Your task to perform on an android device: Set the phone to "Do not disturb". Image 0: 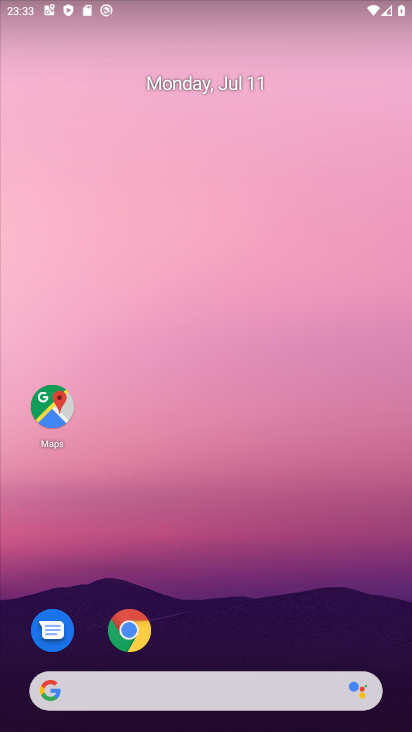
Step 0: drag from (209, 648) to (231, 115)
Your task to perform on an android device: Set the phone to "Do not disturb". Image 1: 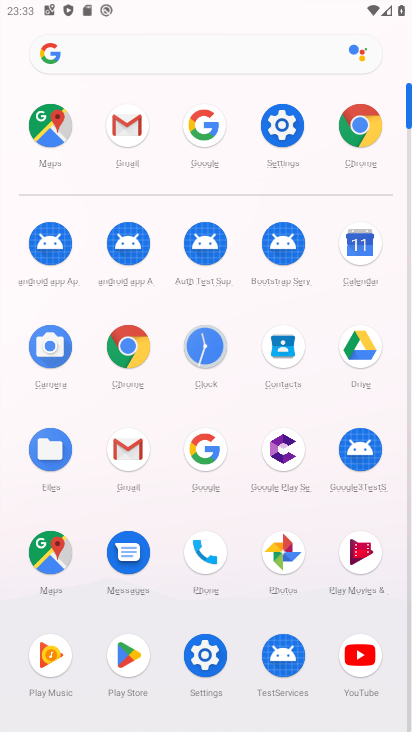
Step 1: click (287, 123)
Your task to perform on an android device: Set the phone to "Do not disturb". Image 2: 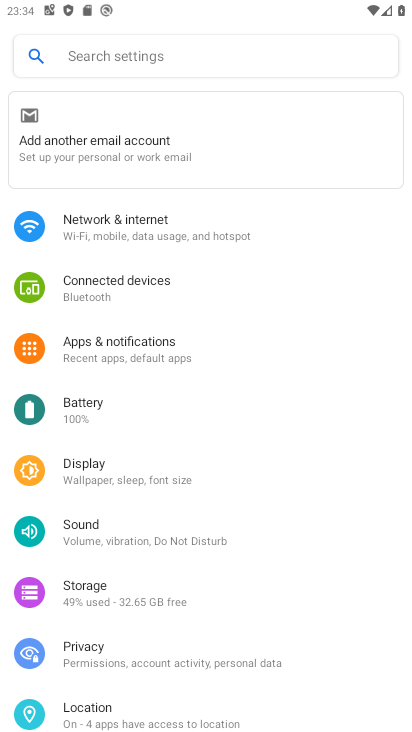
Step 2: click (129, 533)
Your task to perform on an android device: Set the phone to "Do not disturb". Image 3: 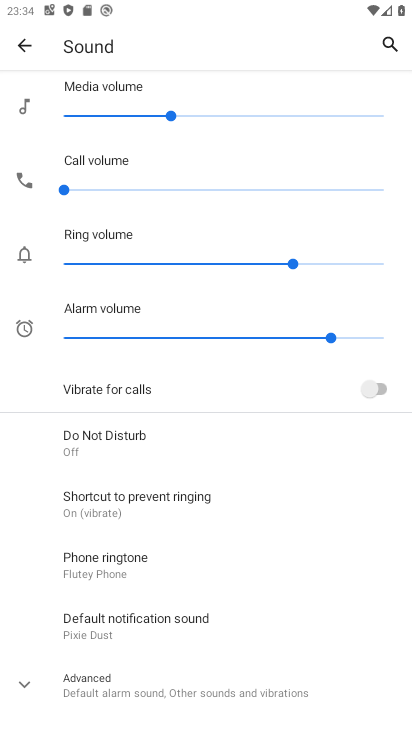
Step 3: click (134, 438)
Your task to perform on an android device: Set the phone to "Do not disturb". Image 4: 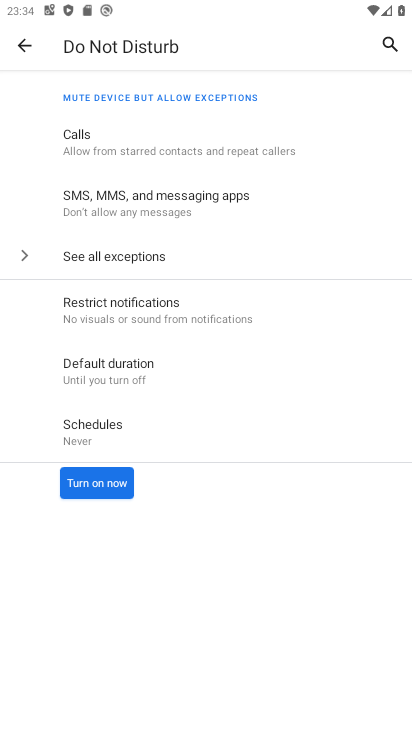
Step 4: click (83, 492)
Your task to perform on an android device: Set the phone to "Do not disturb". Image 5: 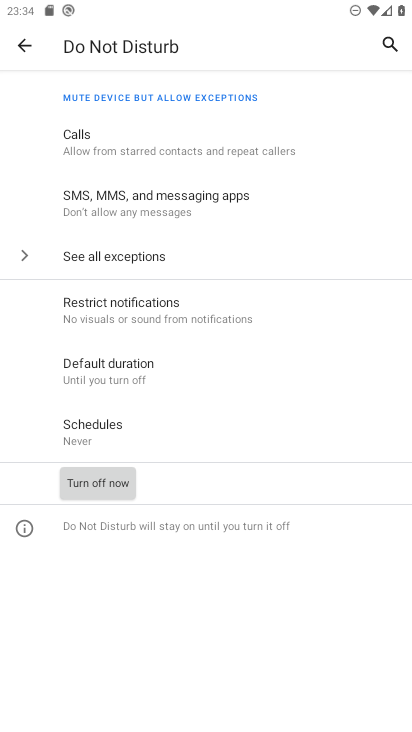
Step 5: task complete